Your task to perform on an android device: Open the stopwatch Image 0: 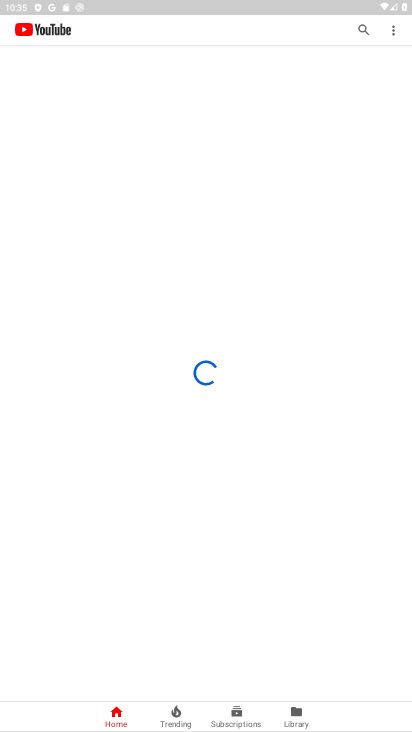
Step 0: press home button
Your task to perform on an android device: Open the stopwatch Image 1: 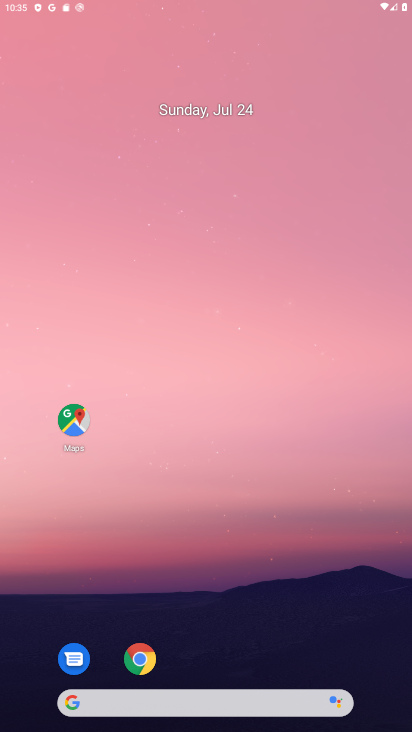
Step 1: drag from (244, 677) to (232, 354)
Your task to perform on an android device: Open the stopwatch Image 2: 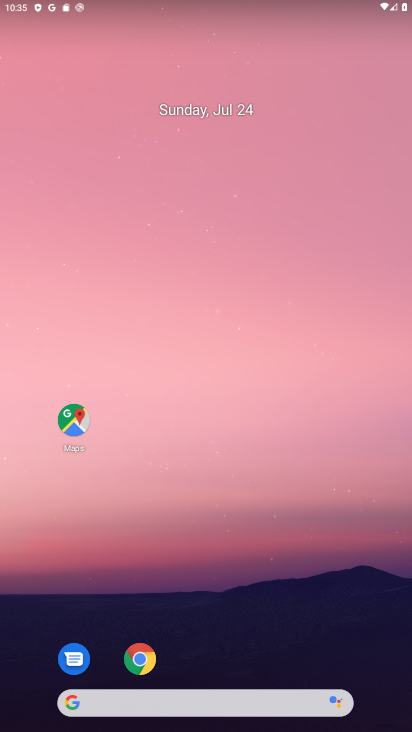
Step 2: click (176, 286)
Your task to perform on an android device: Open the stopwatch Image 3: 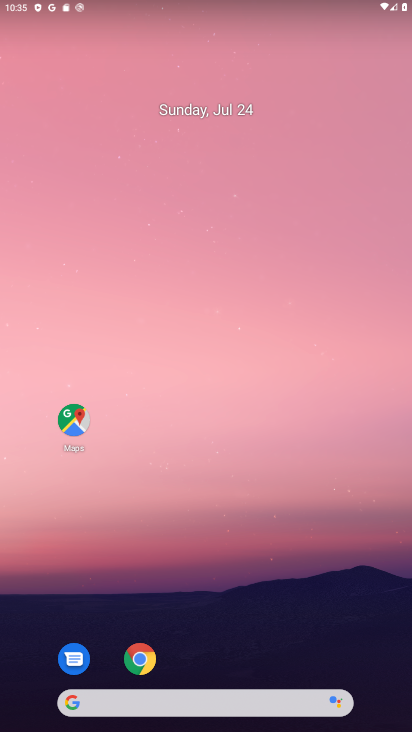
Step 3: drag from (186, 653) to (202, 282)
Your task to perform on an android device: Open the stopwatch Image 4: 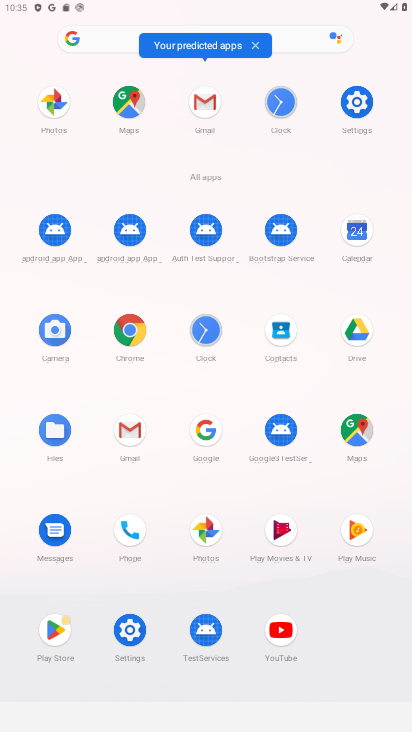
Step 4: click (207, 320)
Your task to perform on an android device: Open the stopwatch Image 5: 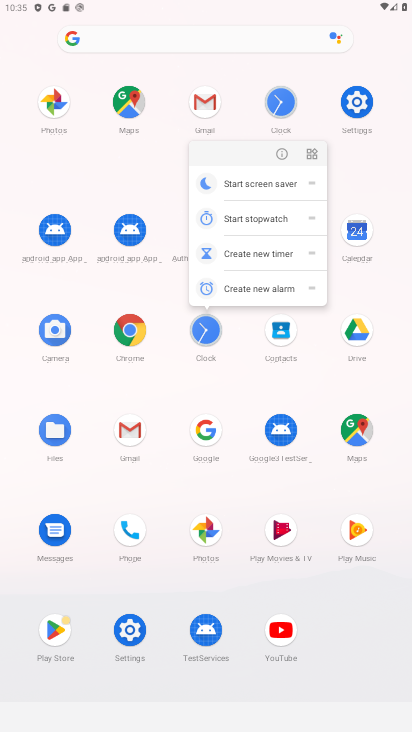
Step 5: click (207, 320)
Your task to perform on an android device: Open the stopwatch Image 6: 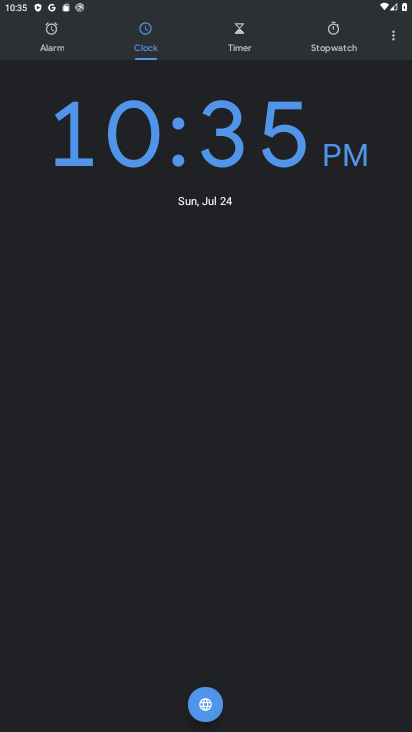
Step 6: click (330, 42)
Your task to perform on an android device: Open the stopwatch Image 7: 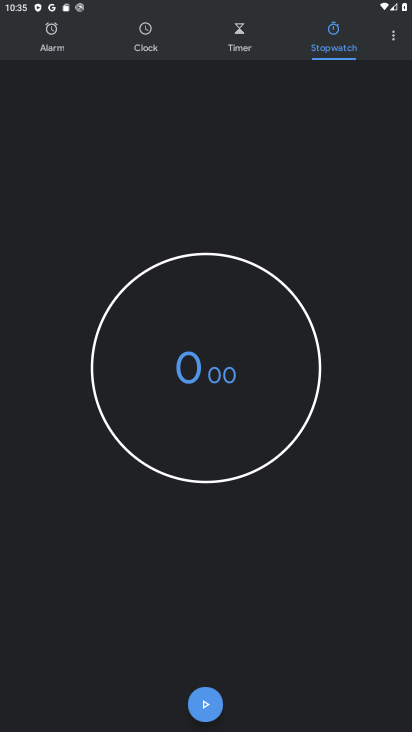
Step 7: task complete